Your task to perform on an android device: change your default location settings in chrome Image 0: 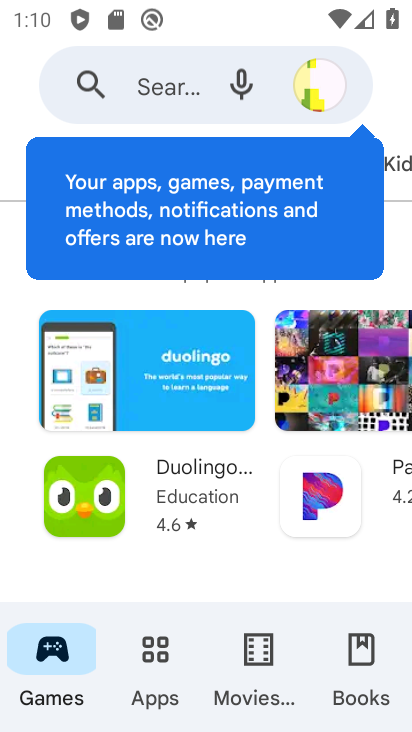
Step 0: press home button
Your task to perform on an android device: change your default location settings in chrome Image 1: 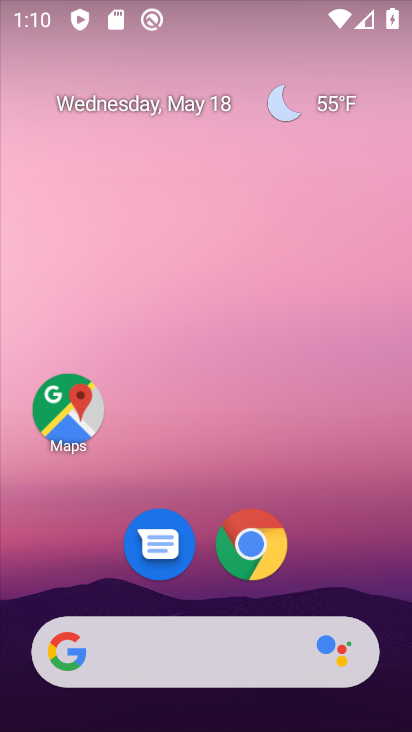
Step 1: click (265, 551)
Your task to perform on an android device: change your default location settings in chrome Image 2: 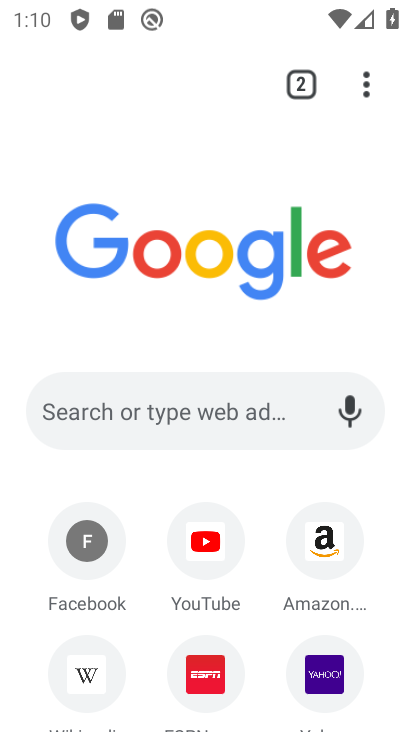
Step 2: click (367, 74)
Your task to perform on an android device: change your default location settings in chrome Image 3: 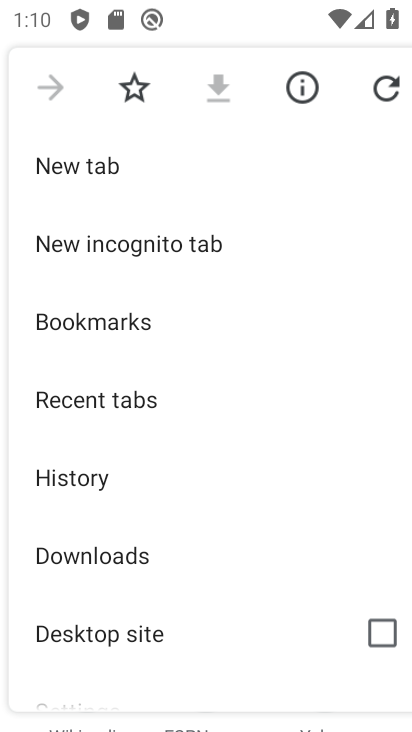
Step 3: drag from (181, 565) to (175, 306)
Your task to perform on an android device: change your default location settings in chrome Image 4: 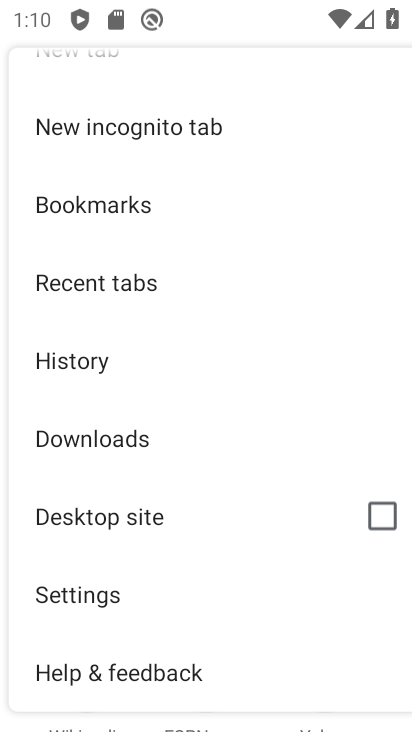
Step 4: click (88, 589)
Your task to perform on an android device: change your default location settings in chrome Image 5: 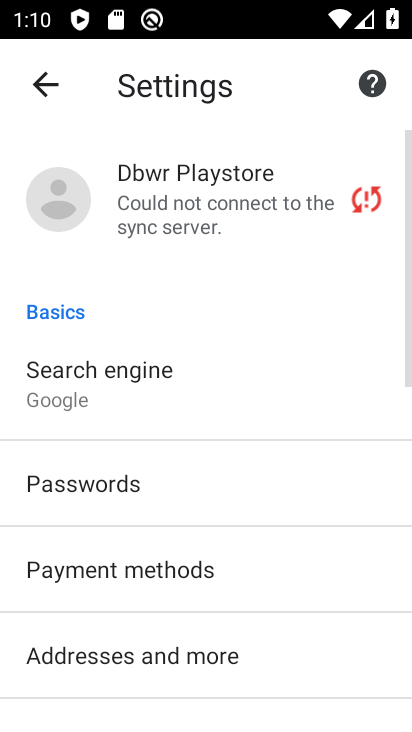
Step 5: drag from (287, 572) to (262, 301)
Your task to perform on an android device: change your default location settings in chrome Image 6: 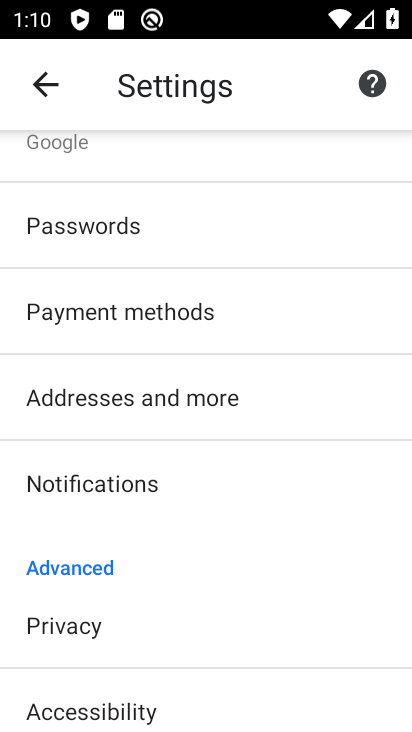
Step 6: drag from (257, 607) to (248, 423)
Your task to perform on an android device: change your default location settings in chrome Image 7: 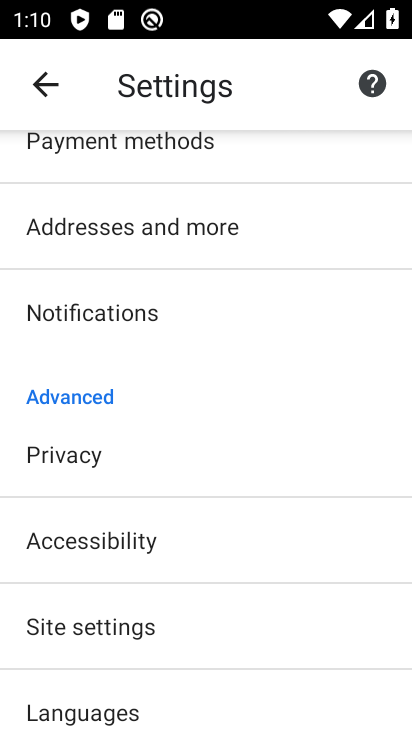
Step 7: click (125, 618)
Your task to perform on an android device: change your default location settings in chrome Image 8: 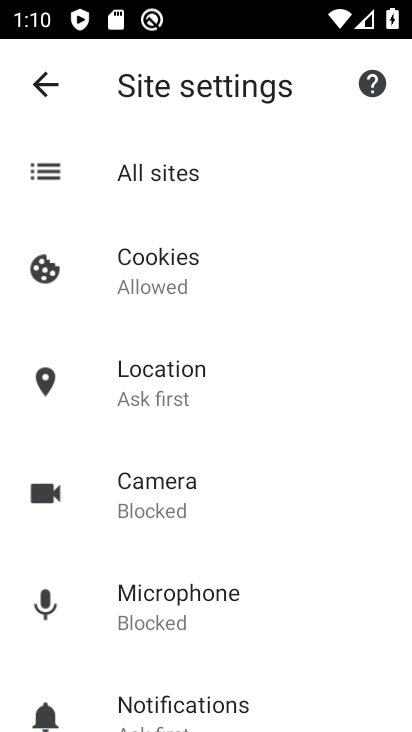
Step 8: drag from (288, 671) to (271, 517)
Your task to perform on an android device: change your default location settings in chrome Image 9: 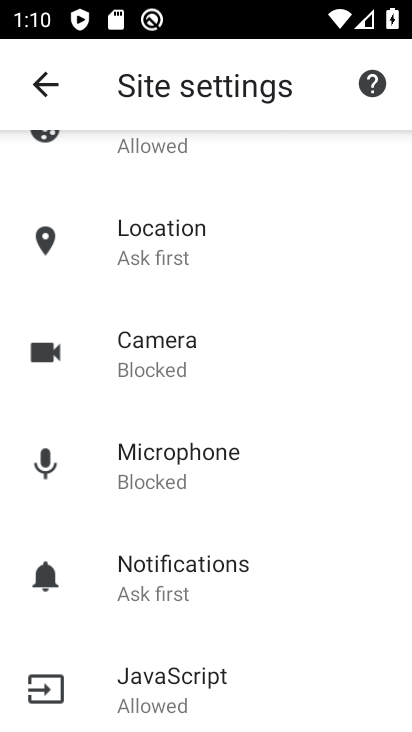
Step 9: click (187, 254)
Your task to perform on an android device: change your default location settings in chrome Image 10: 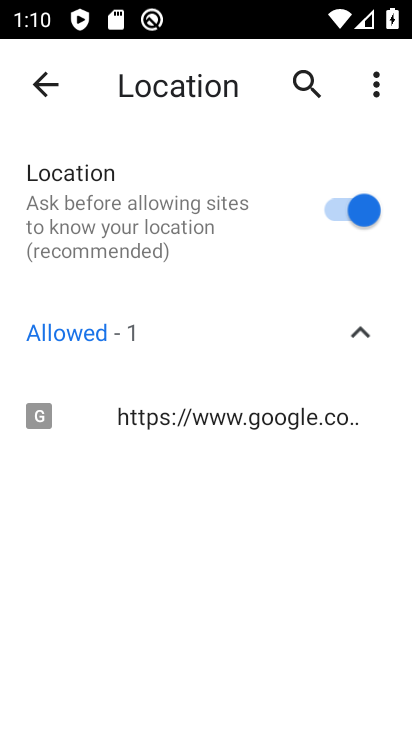
Step 10: click (338, 209)
Your task to perform on an android device: change your default location settings in chrome Image 11: 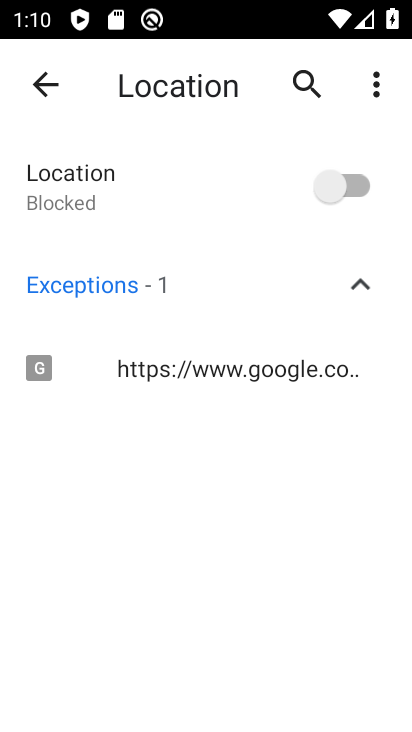
Step 11: task complete